Your task to perform on an android device: Open the Play Movies app and select the watchlist tab. Image 0: 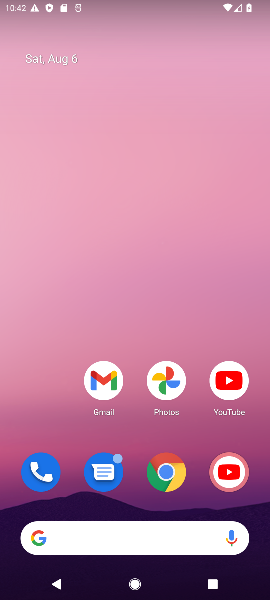
Step 0: drag from (215, 446) to (121, 53)
Your task to perform on an android device: Open the Play Movies app and select the watchlist tab. Image 1: 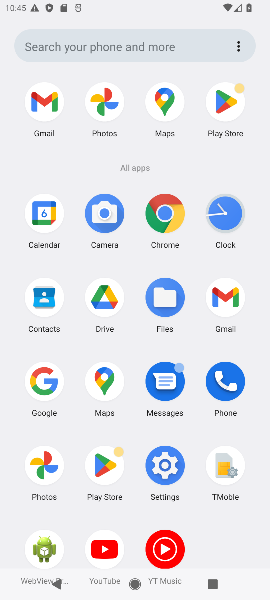
Step 1: task complete